Your task to perform on an android device: change timer sound Image 0: 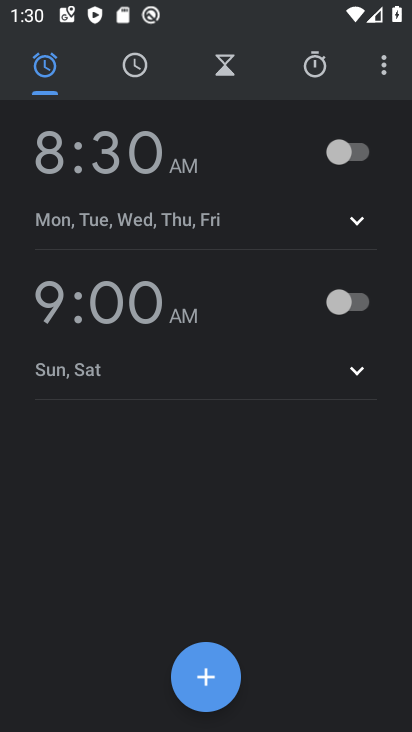
Step 0: press home button
Your task to perform on an android device: change timer sound Image 1: 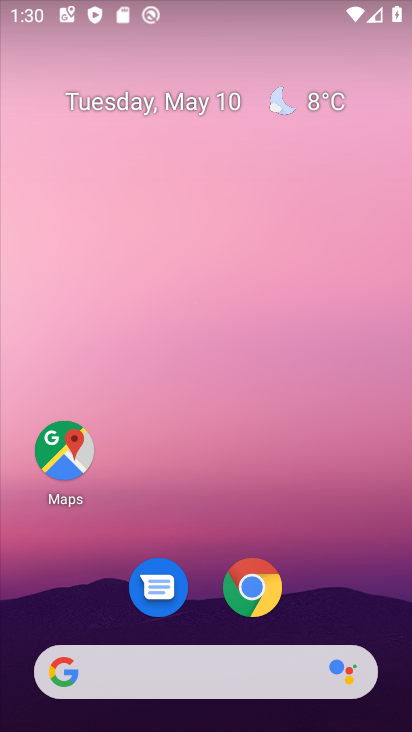
Step 1: drag from (305, 550) to (240, 155)
Your task to perform on an android device: change timer sound Image 2: 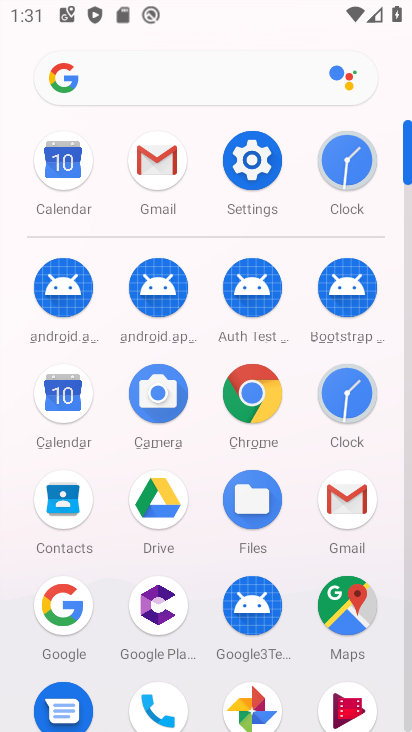
Step 2: drag from (204, 528) to (192, 350)
Your task to perform on an android device: change timer sound Image 3: 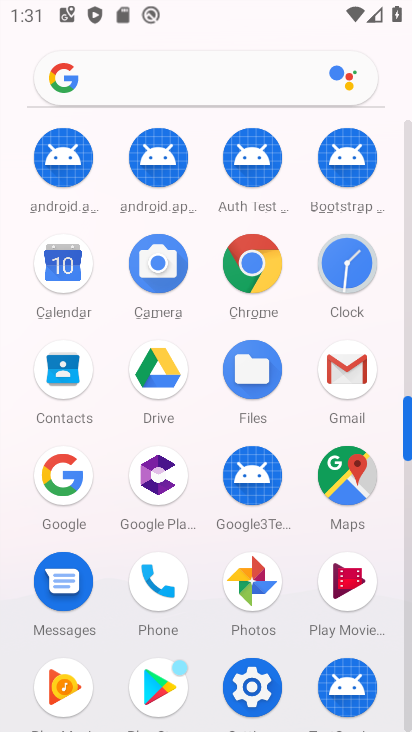
Step 3: click (356, 260)
Your task to perform on an android device: change timer sound Image 4: 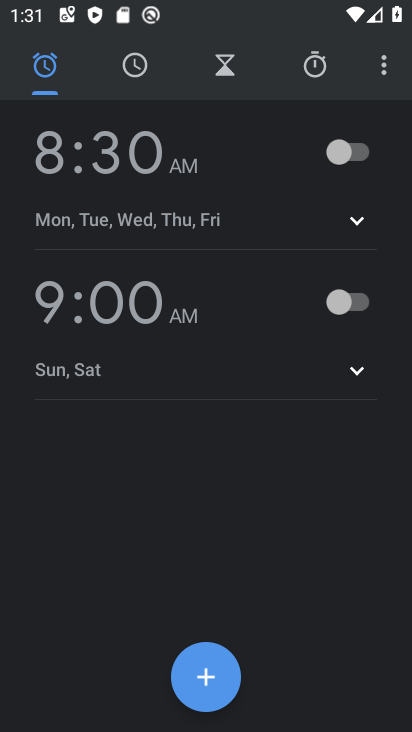
Step 4: click (378, 79)
Your task to perform on an android device: change timer sound Image 5: 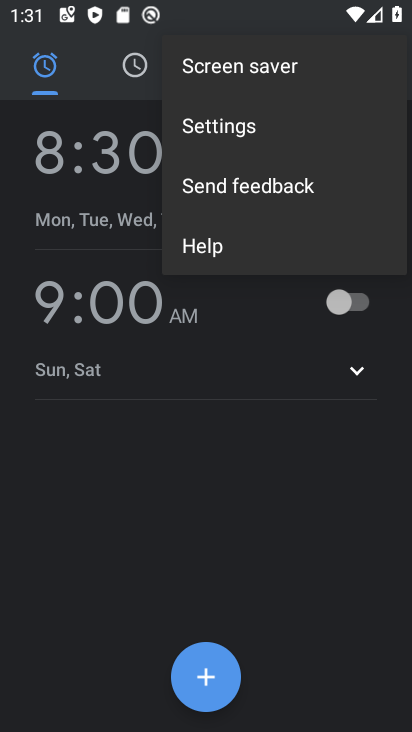
Step 5: click (209, 131)
Your task to perform on an android device: change timer sound Image 6: 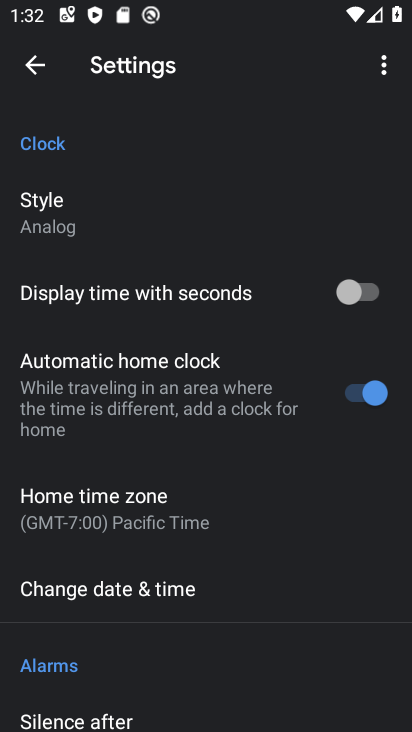
Step 6: drag from (159, 650) to (132, 292)
Your task to perform on an android device: change timer sound Image 7: 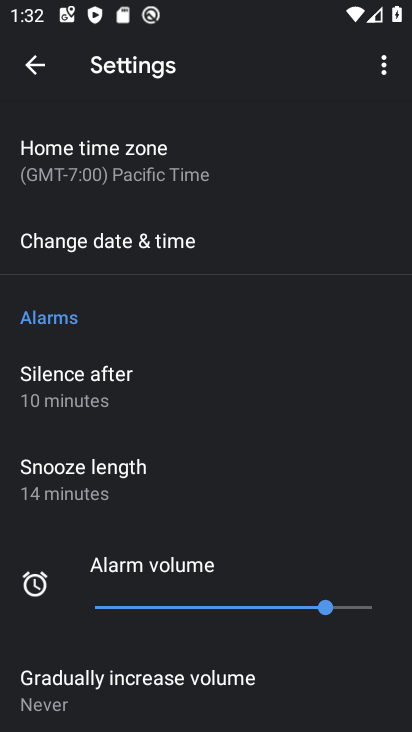
Step 7: drag from (161, 592) to (135, 224)
Your task to perform on an android device: change timer sound Image 8: 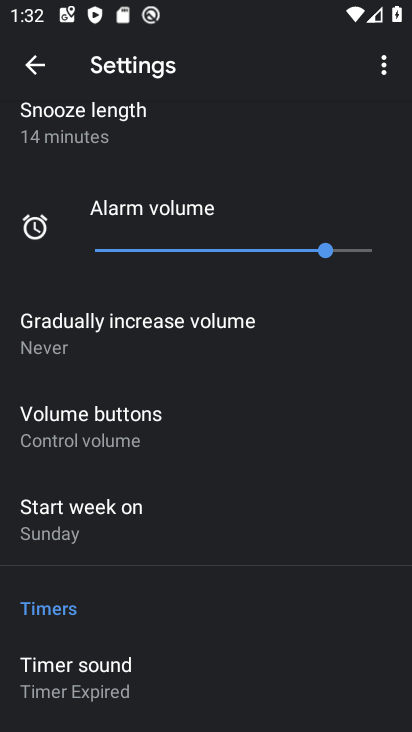
Step 8: drag from (146, 653) to (137, 459)
Your task to perform on an android device: change timer sound Image 9: 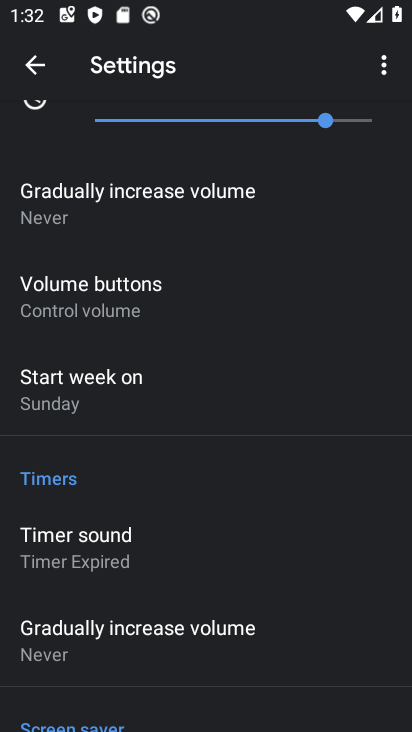
Step 9: click (130, 548)
Your task to perform on an android device: change timer sound Image 10: 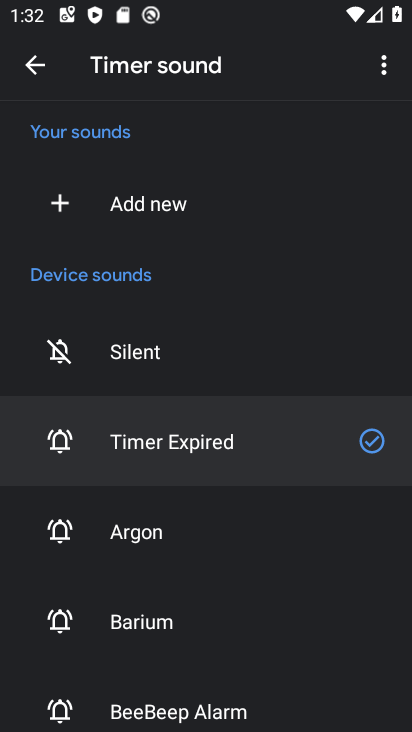
Step 10: click (210, 528)
Your task to perform on an android device: change timer sound Image 11: 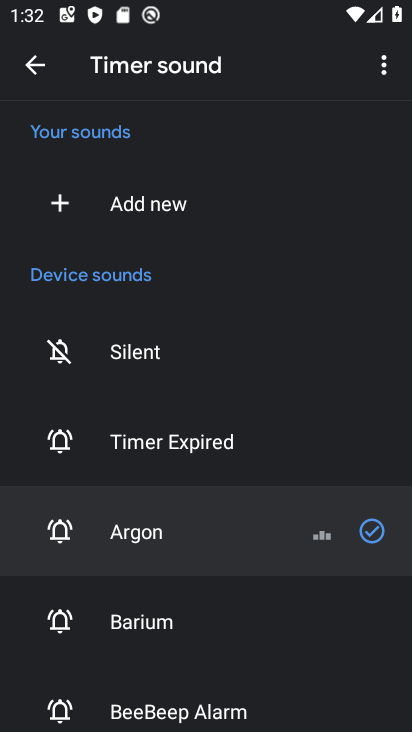
Step 11: task complete